Your task to perform on an android device: change the clock display to digital Image 0: 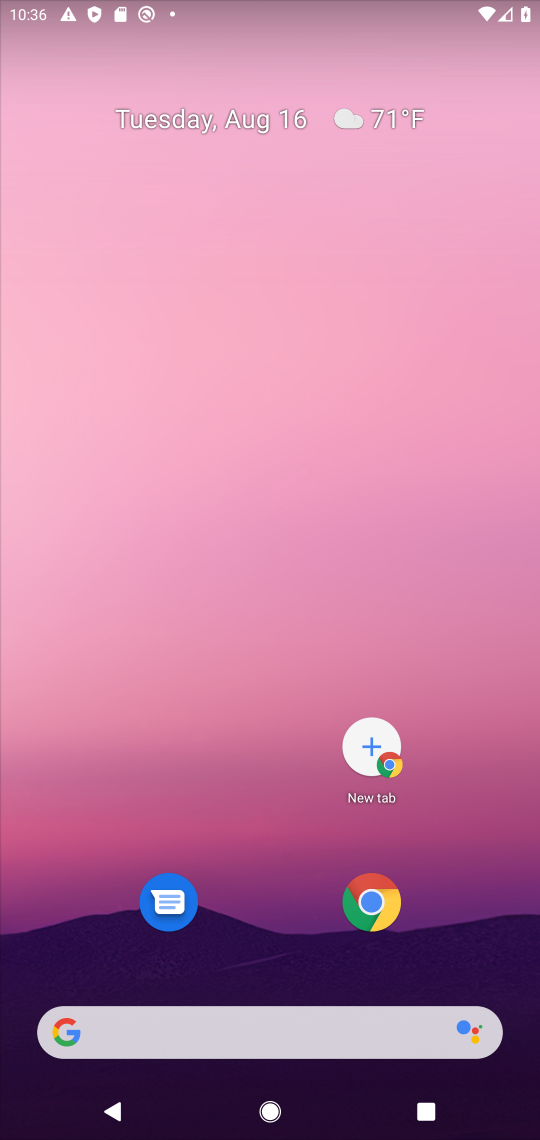
Step 0: drag from (257, 923) to (371, 172)
Your task to perform on an android device: change the clock display to digital Image 1: 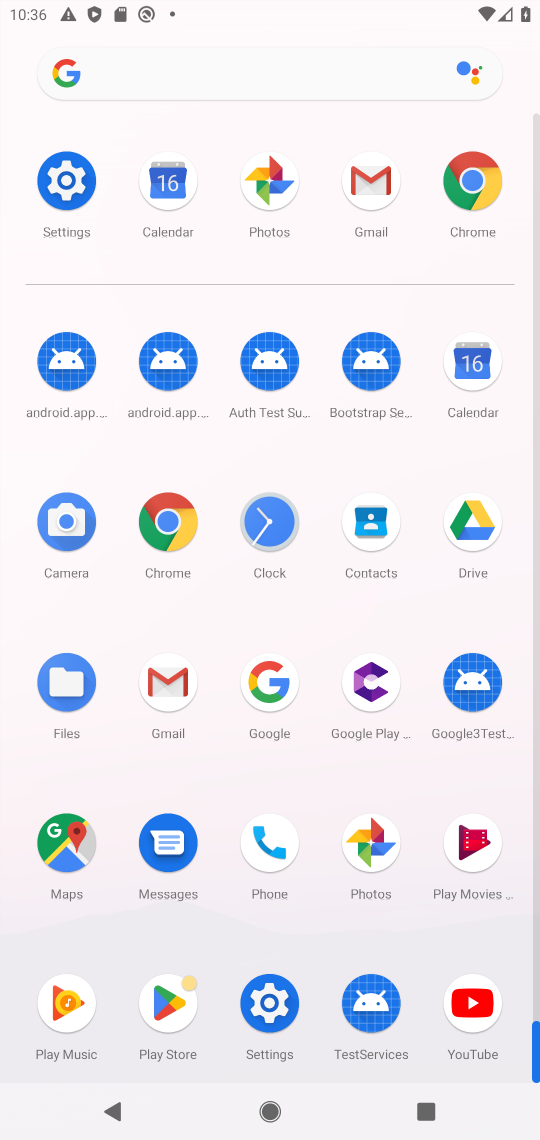
Step 1: click (268, 529)
Your task to perform on an android device: change the clock display to digital Image 2: 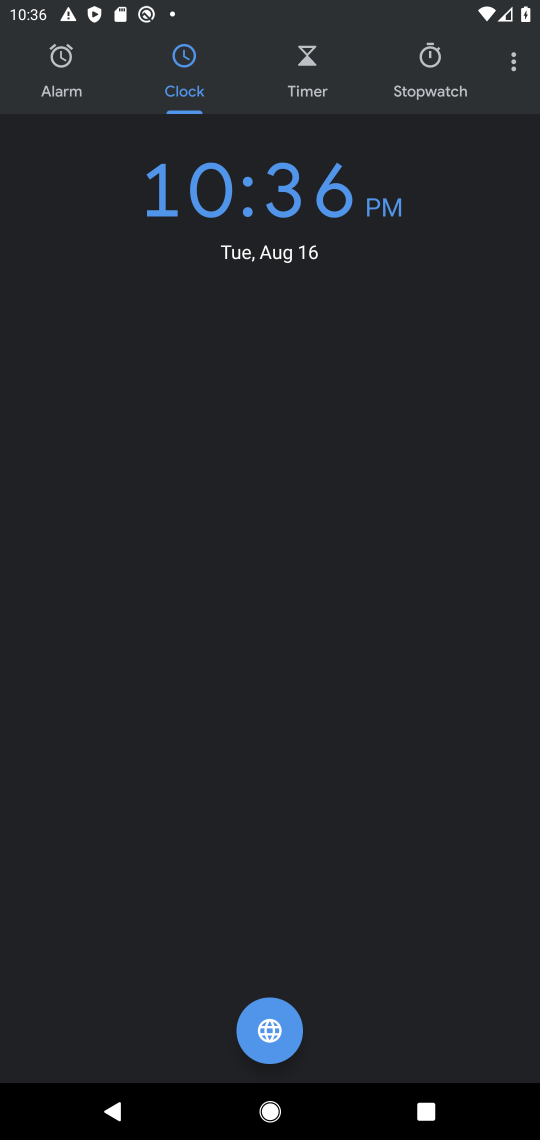
Step 2: click (511, 58)
Your task to perform on an android device: change the clock display to digital Image 3: 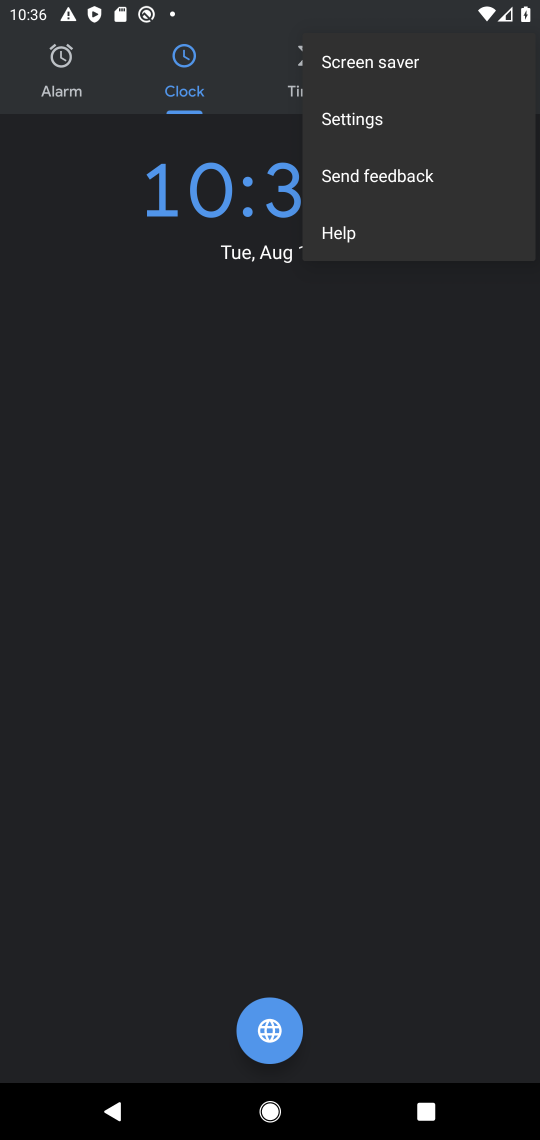
Step 3: click (368, 118)
Your task to perform on an android device: change the clock display to digital Image 4: 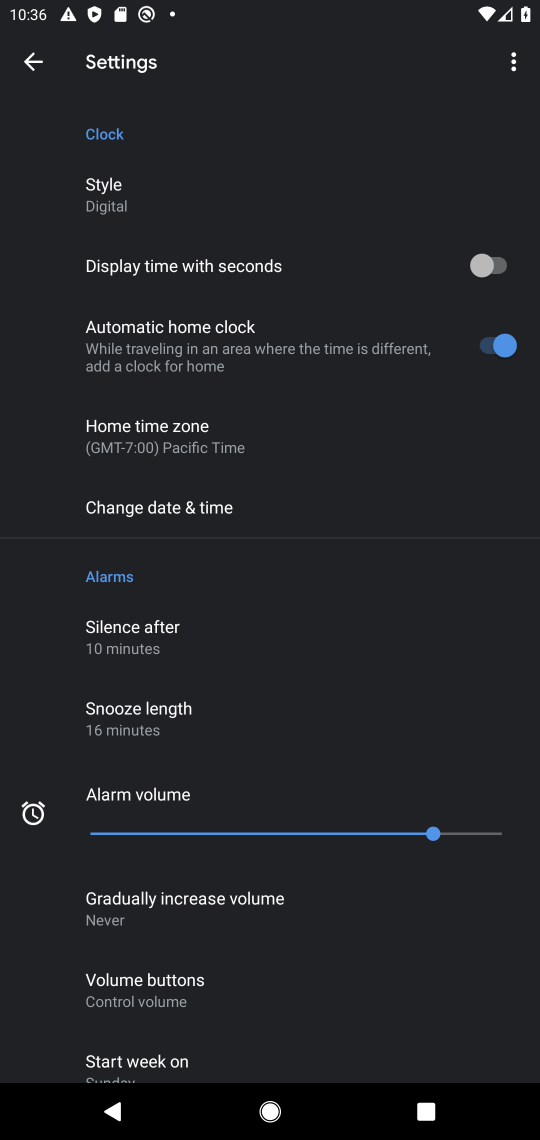
Step 4: click (123, 208)
Your task to perform on an android device: change the clock display to digital Image 5: 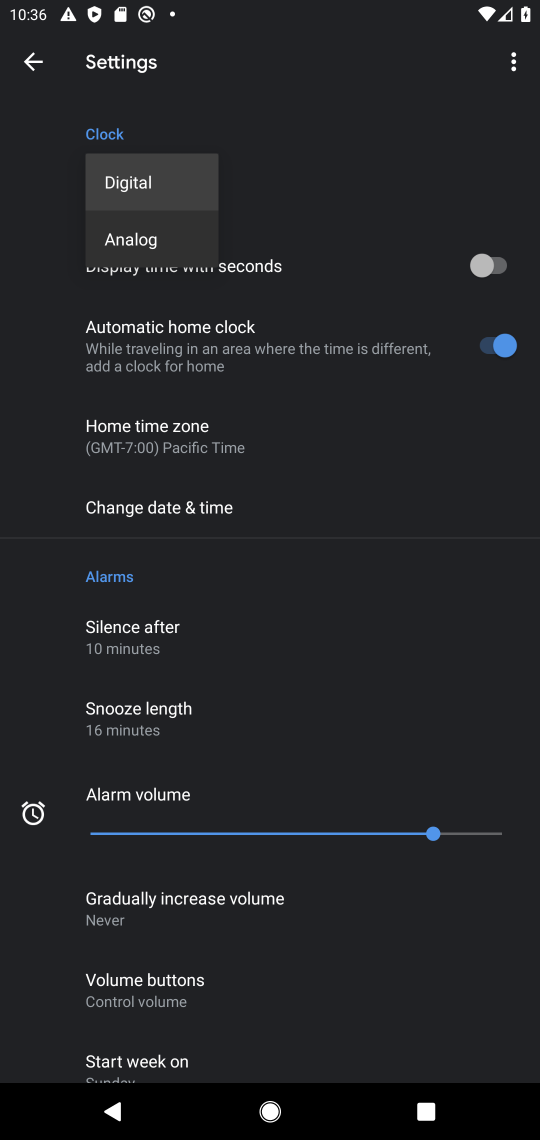
Step 5: click (145, 183)
Your task to perform on an android device: change the clock display to digital Image 6: 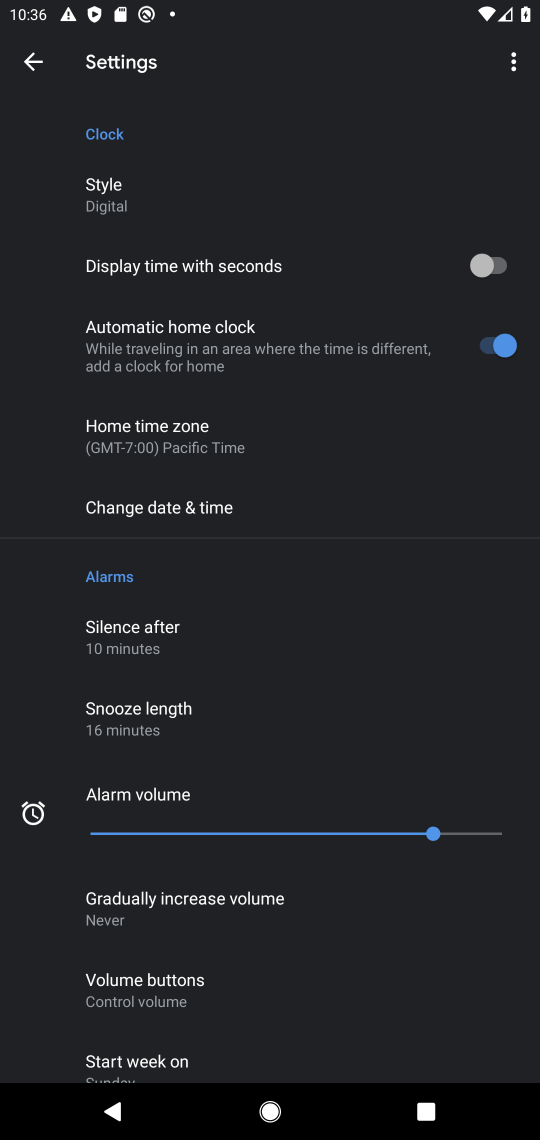
Step 6: task complete